Your task to perform on an android device: turn notification dots on Image 0: 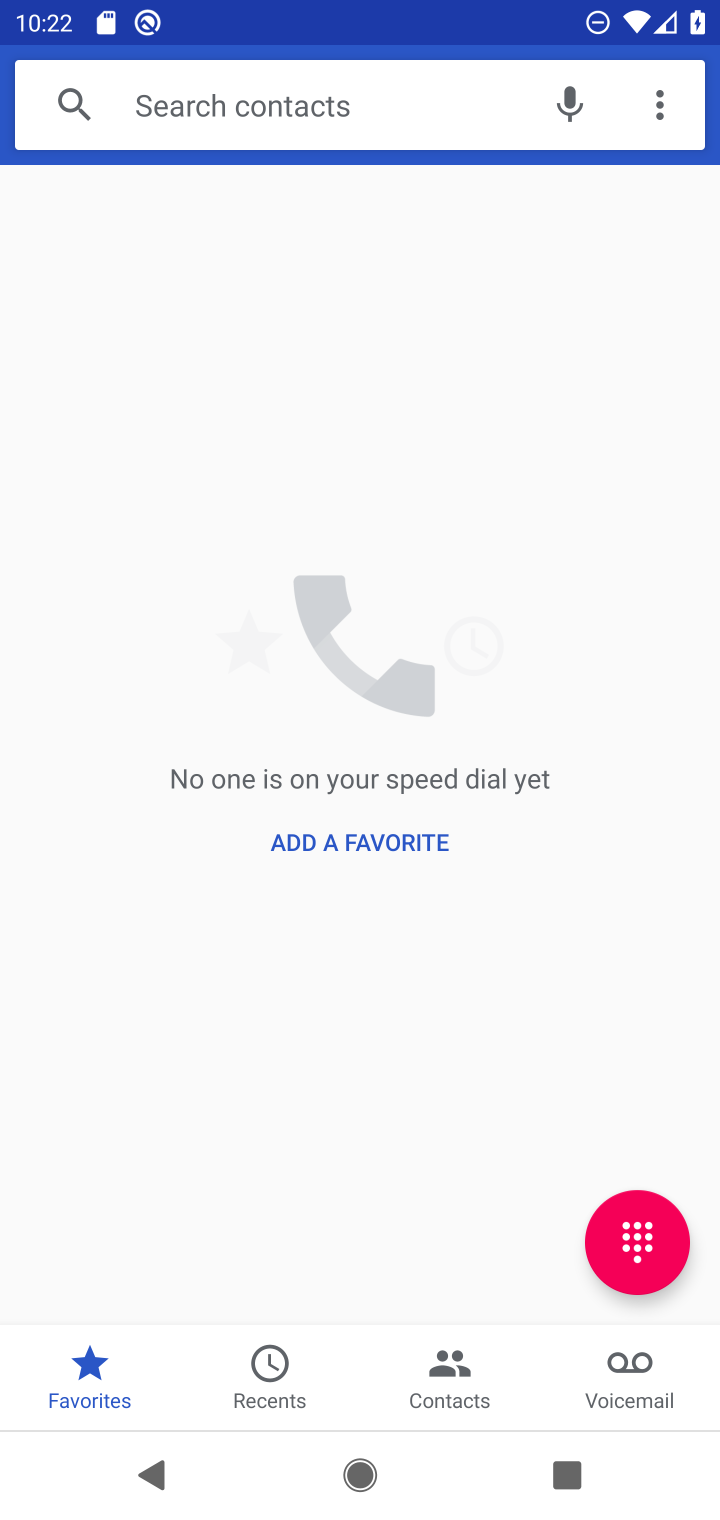
Step 0: press home button
Your task to perform on an android device: turn notification dots on Image 1: 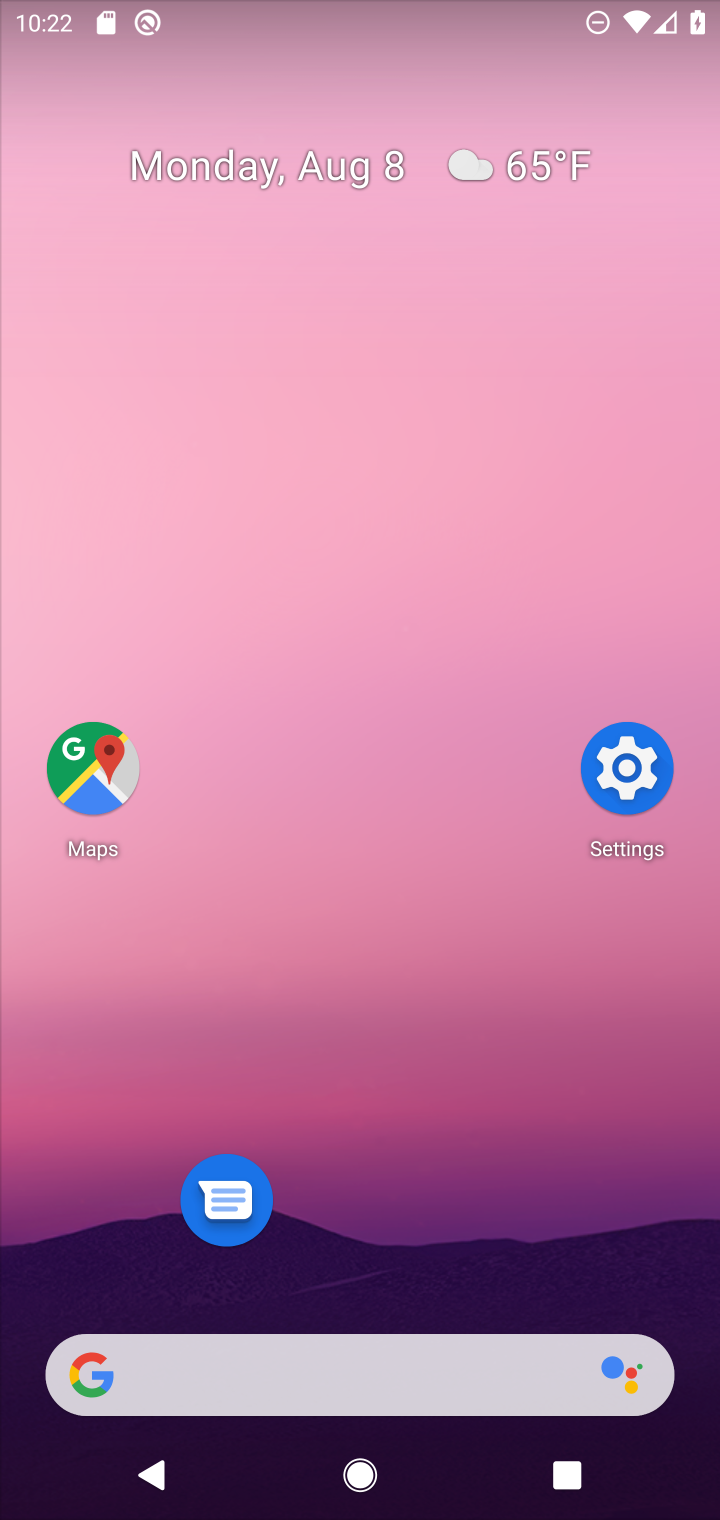
Step 1: click (622, 757)
Your task to perform on an android device: turn notification dots on Image 2: 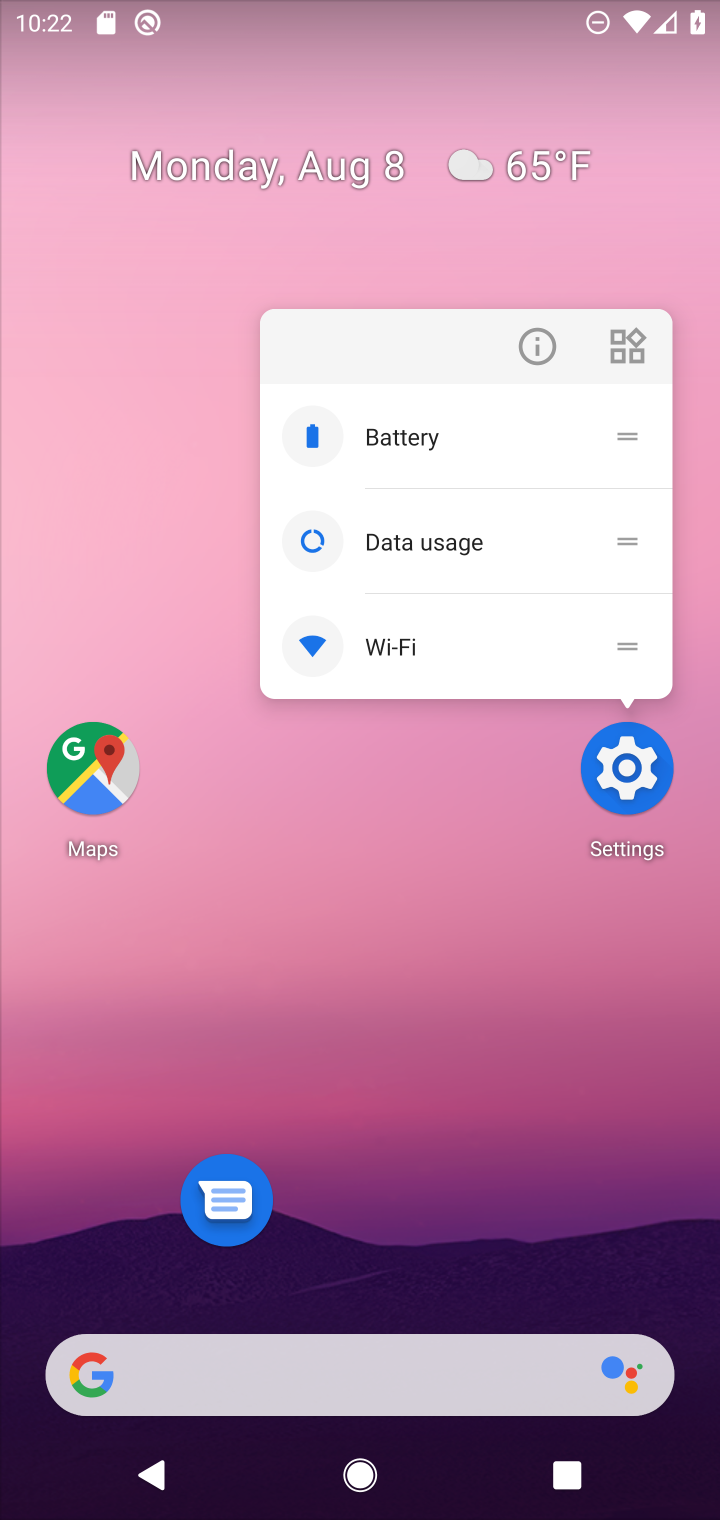
Step 2: click (598, 804)
Your task to perform on an android device: turn notification dots on Image 3: 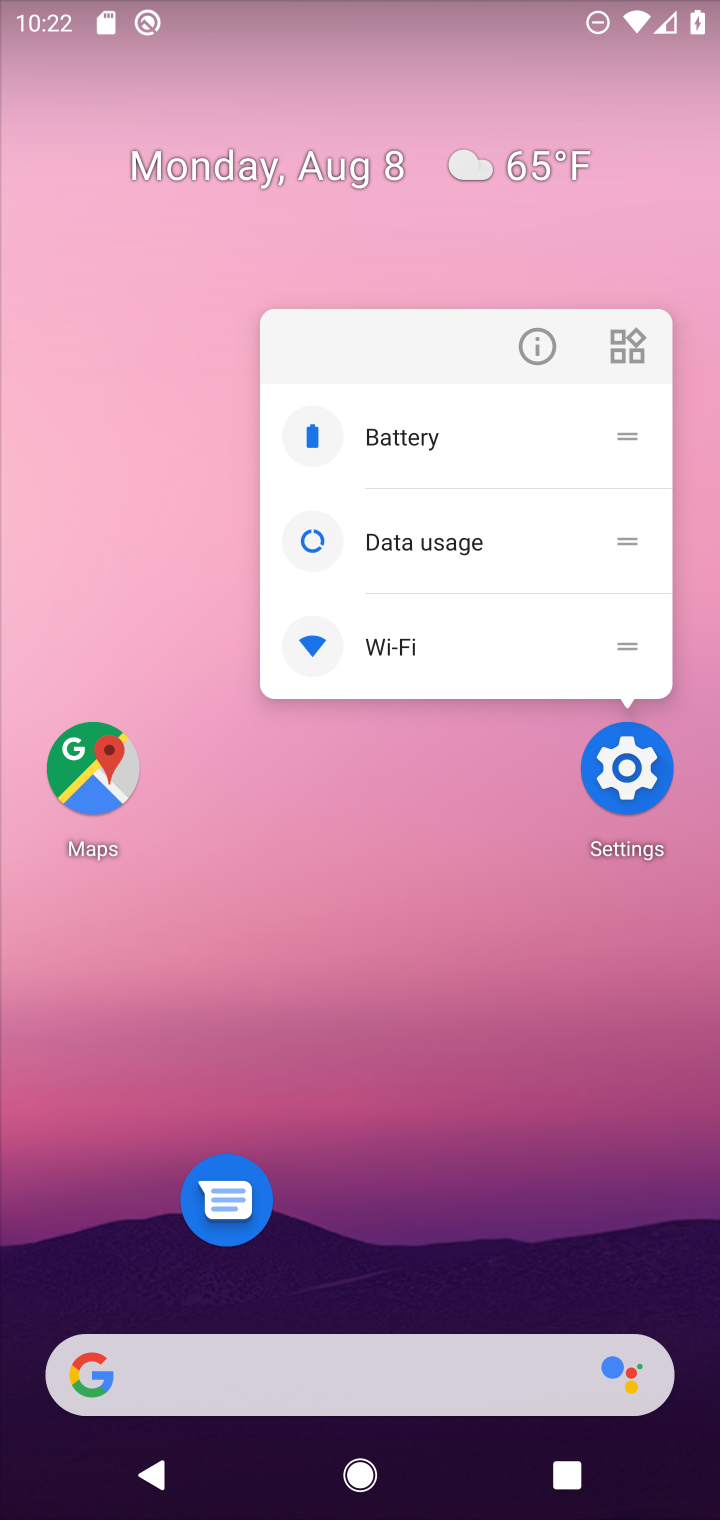
Step 3: click (633, 765)
Your task to perform on an android device: turn notification dots on Image 4: 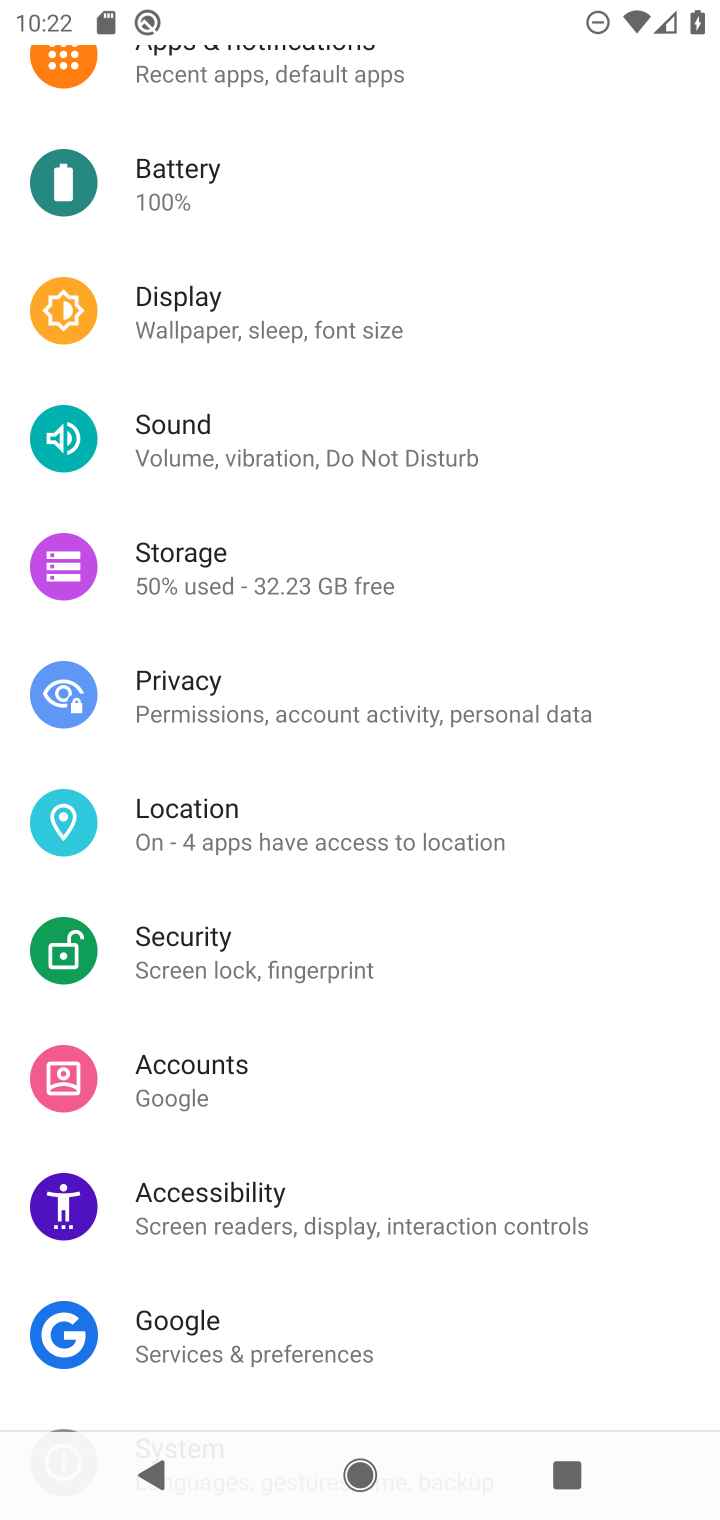
Step 4: drag from (512, 329) to (518, 982)
Your task to perform on an android device: turn notification dots on Image 5: 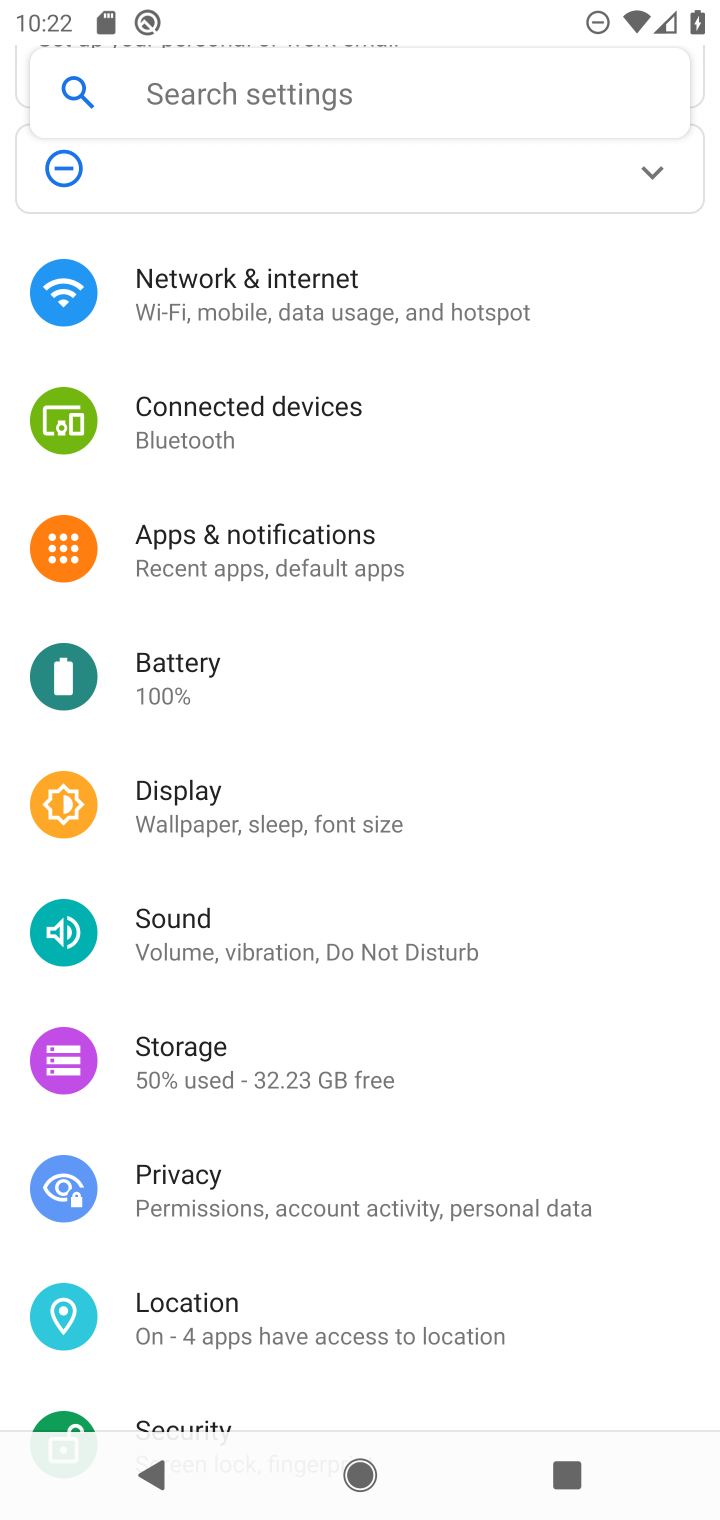
Step 5: click (335, 556)
Your task to perform on an android device: turn notification dots on Image 6: 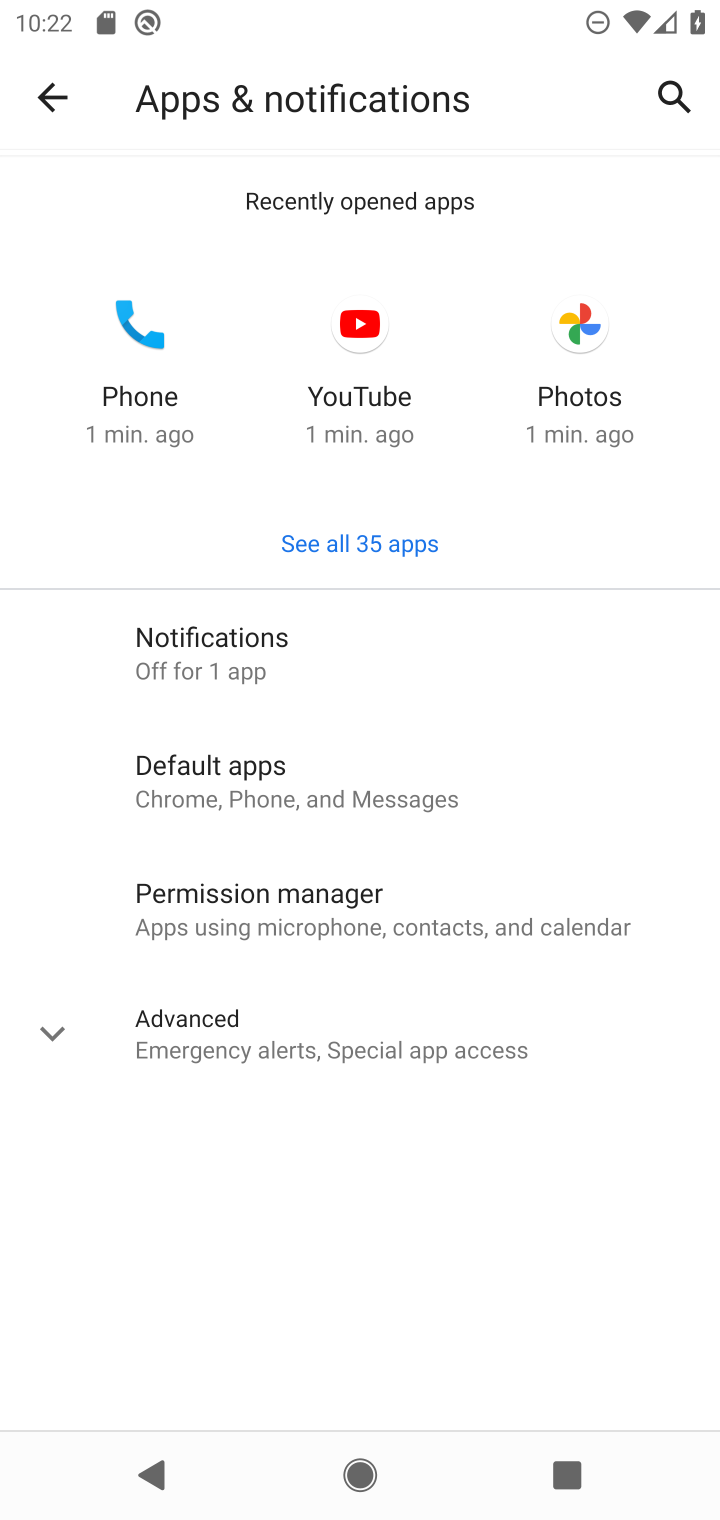
Step 6: click (207, 658)
Your task to perform on an android device: turn notification dots on Image 7: 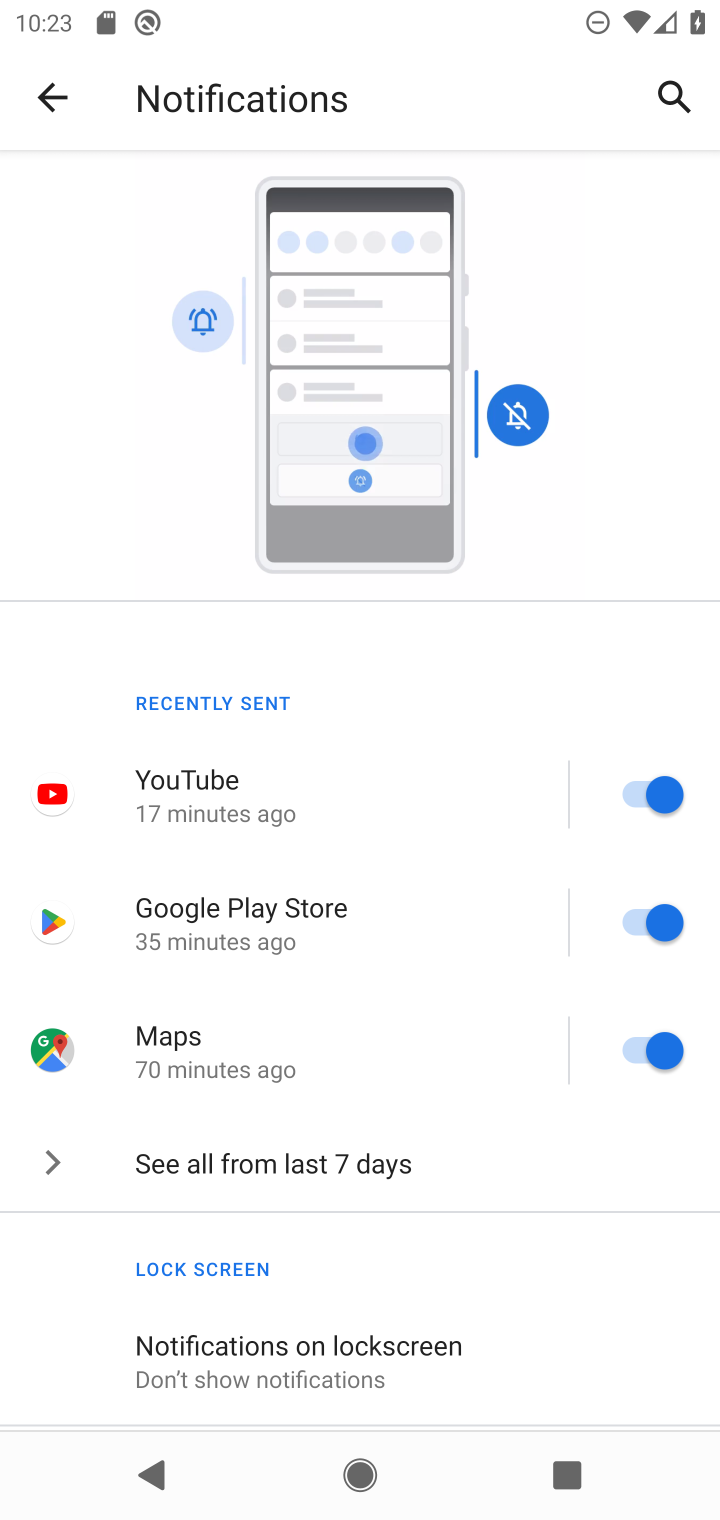
Step 7: drag from (387, 1242) to (585, 447)
Your task to perform on an android device: turn notification dots on Image 8: 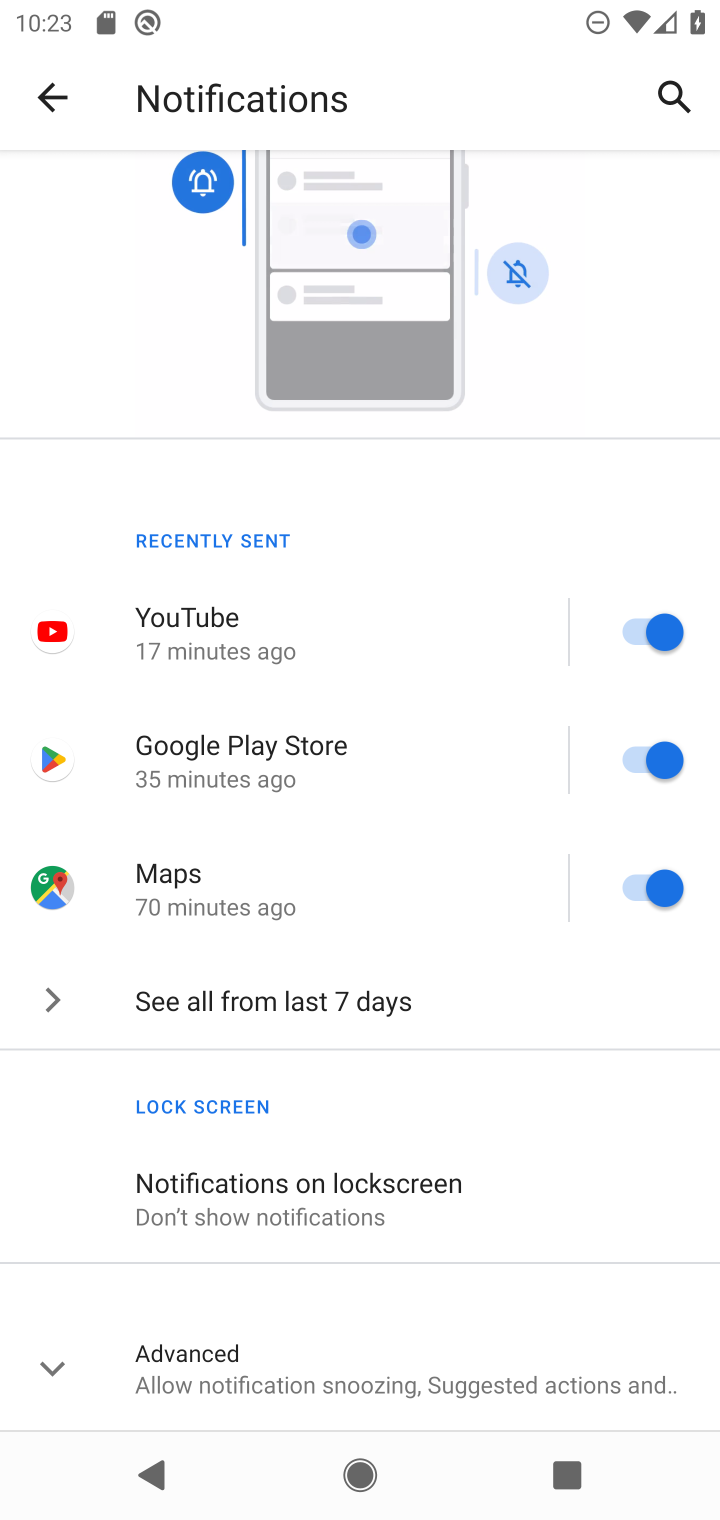
Step 8: click (290, 1370)
Your task to perform on an android device: turn notification dots on Image 9: 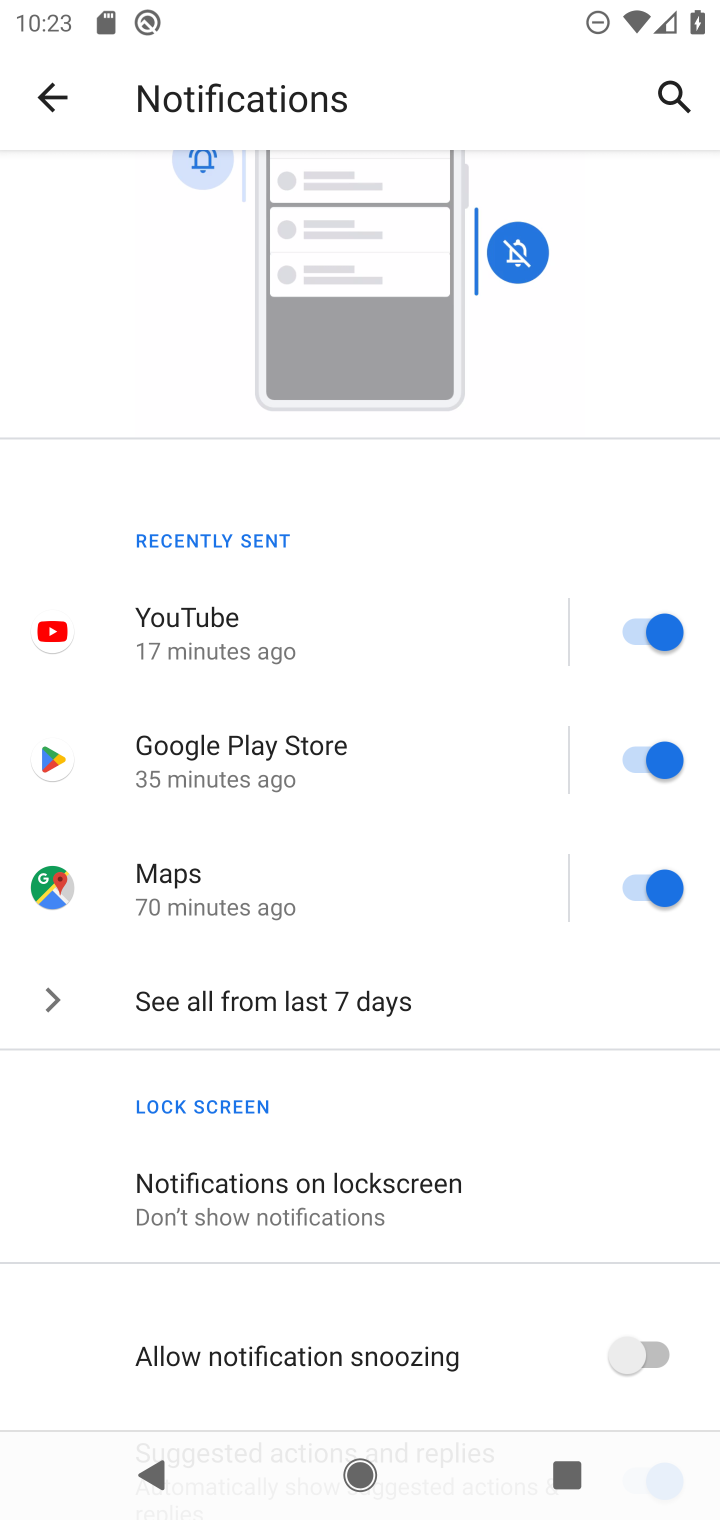
Step 9: task complete